Your task to perform on an android device: Open calendar and show me the first week of next month Image 0: 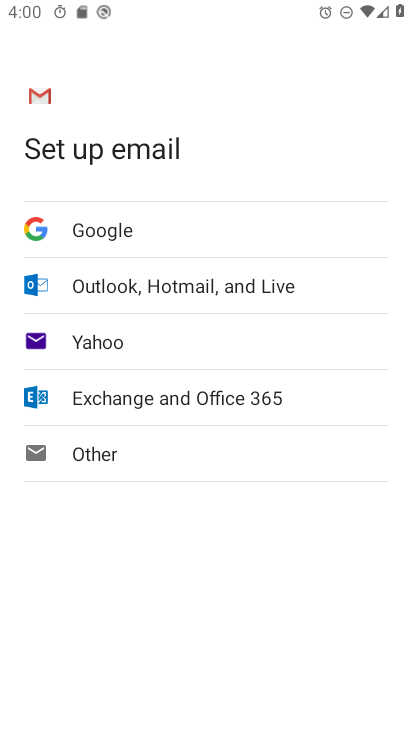
Step 0: press home button
Your task to perform on an android device: Open calendar and show me the first week of next month Image 1: 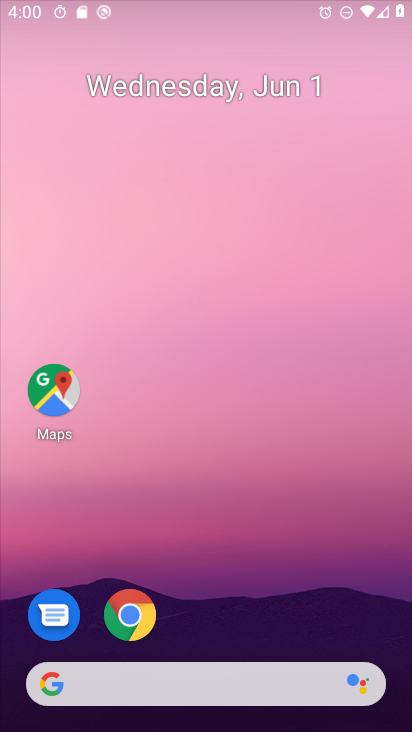
Step 1: drag from (268, 662) to (329, 32)
Your task to perform on an android device: Open calendar and show me the first week of next month Image 2: 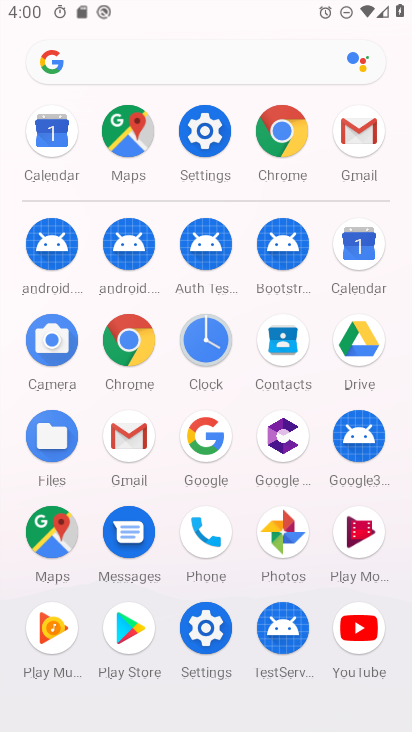
Step 2: click (356, 255)
Your task to perform on an android device: Open calendar and show me the first week of next month Image 3: 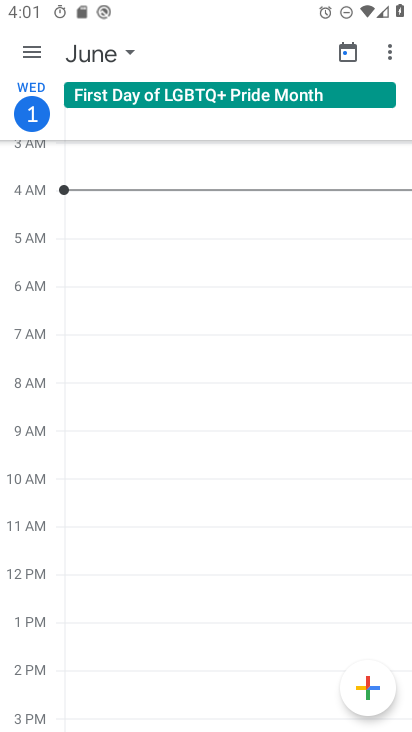
Step 3: click (127, 56)
Your task to perform on an android device: Open calendar and show me the first week of next month Image 4: 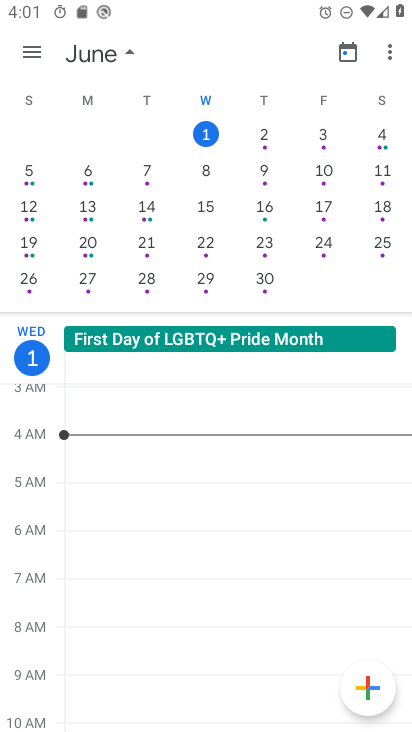
Step 4: click (311, 136)
Your task to perform on an android device: Open calendar and show me the first week of next month Image 5: 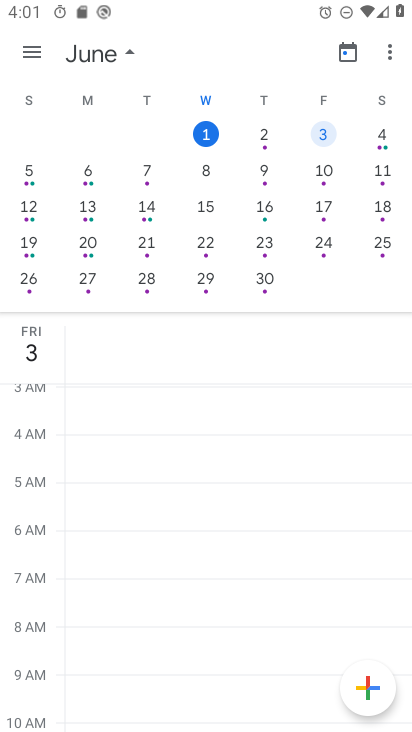
Step 5: click (25, 46)
Your task to perform on an android device: Open calendar and show me the first week of next month Image 6: 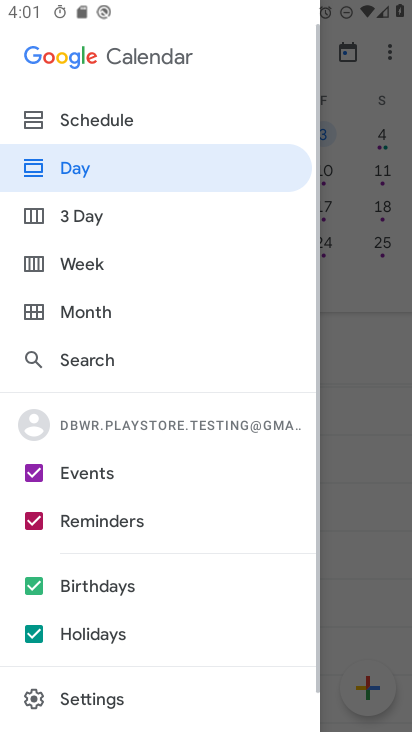
Step 6: click (82, 267)
Your task to perform on an android device: Open calendar and show me the first week of next month Image 7: 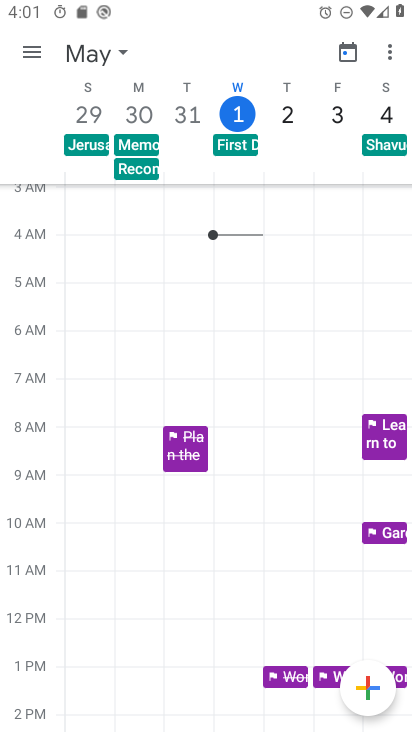
Step 7: task complete